Your task to perform on an android device: Search for bose soundsport free on walmart, select the first entry, add it to the cart, then select checkout. Image 0: 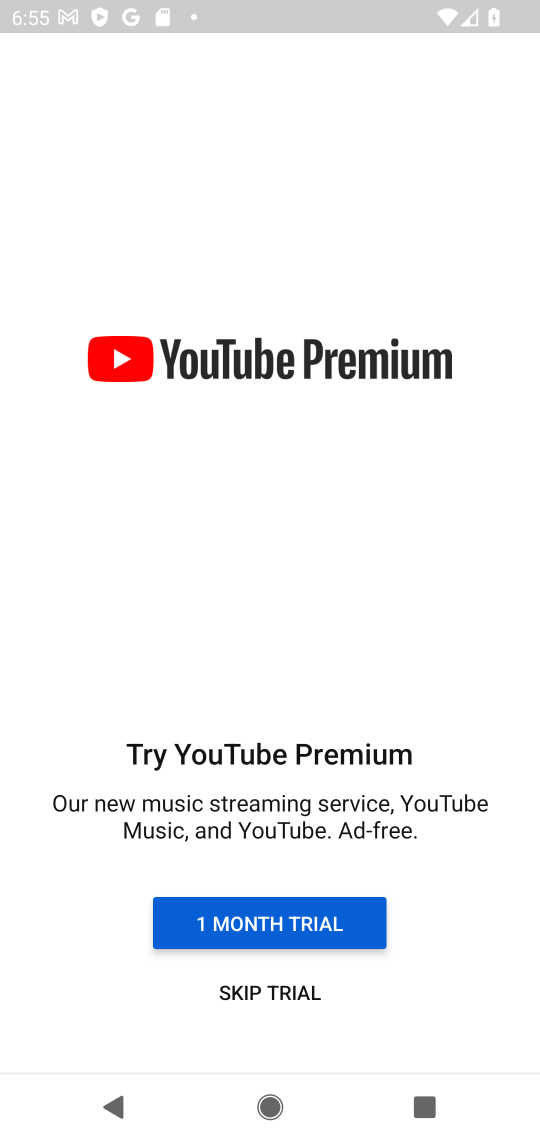
Step 0: press home button
Your task to perform on an android device: Search for bose soundsport free on walmart, select the first entry, add it to the cart, then select checkout. Image 1: 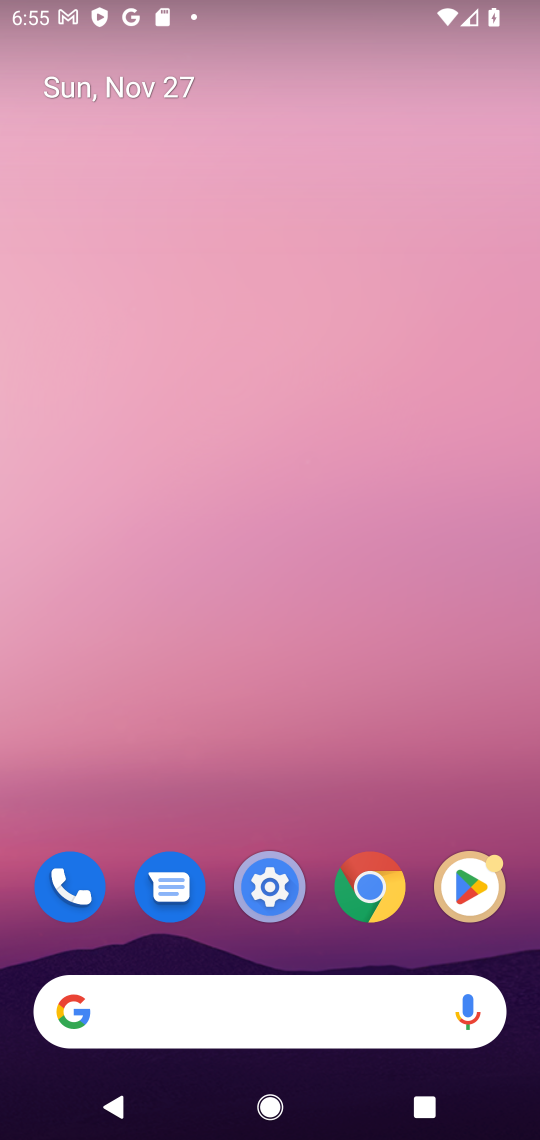
Step 1: click (249, 1039)
Your task to perform on an android device: Search for bose soundsport free on walmart, select the first entry, add it to the cart, then select checkout. Image 2: 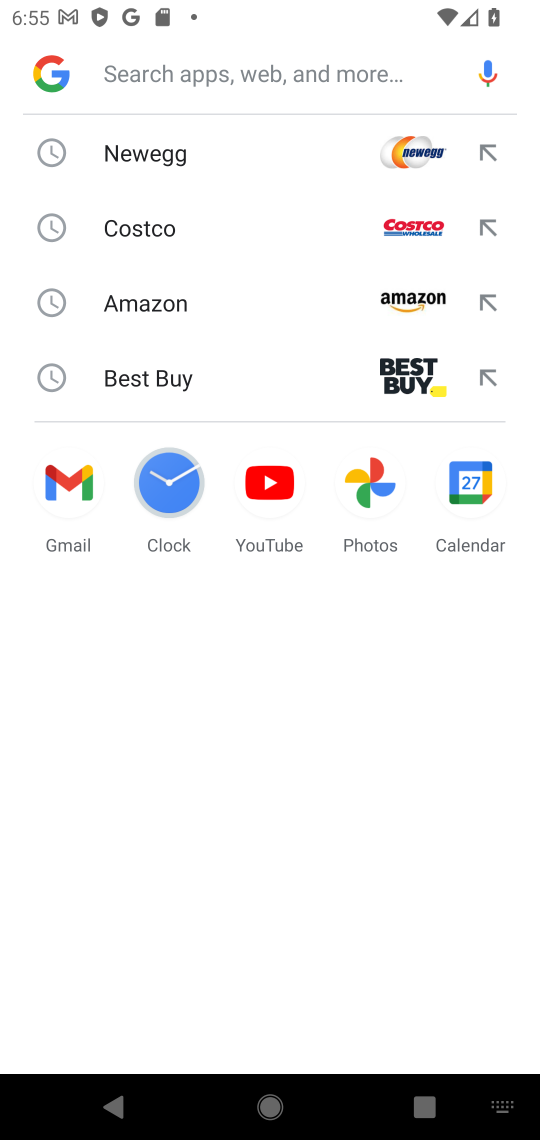
Step 2: type "walmart"
Your task to perform on an android device: Search for bose soundsport free on walmart, select the first entry, add it to the cart, then select checkout. Image 3: 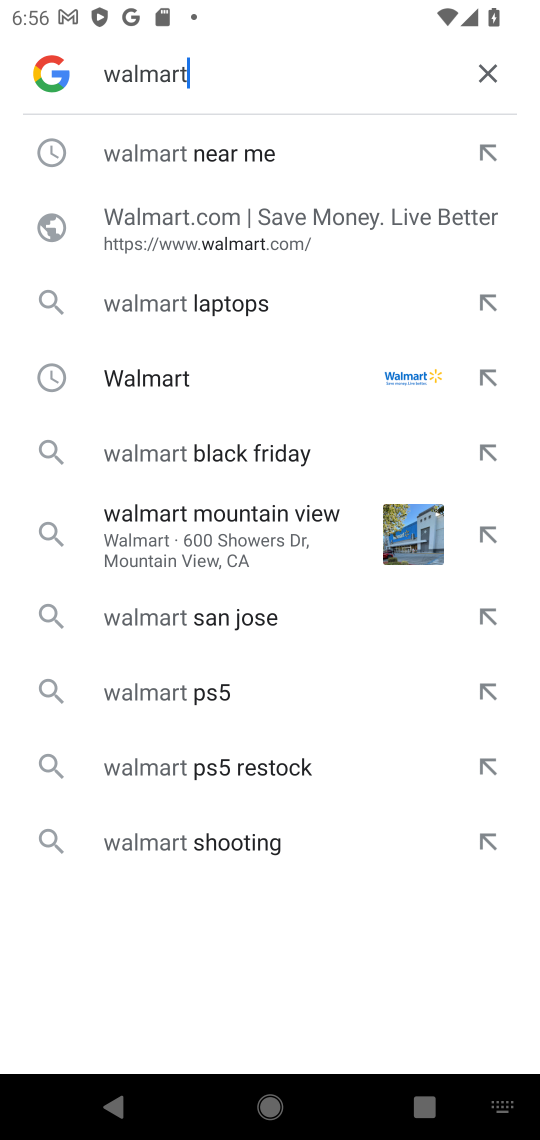
Step 3: click (193, 221)
Your task to perform on an android device: Search for bose soundsport free on walmart, select the first entry, add it to the cart, then select checkout. Image 4: 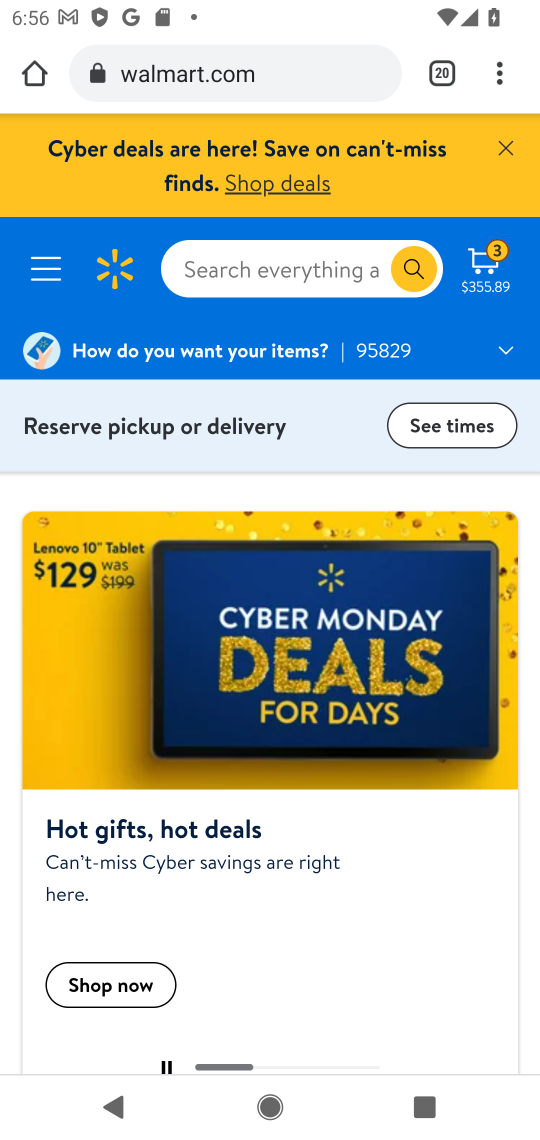
Step 4: click (263, 270)
Your task to perform on an android device: Search for bose soundsport free on walmart, select the first entry, add it to the cart, then select checkout. Image 5: 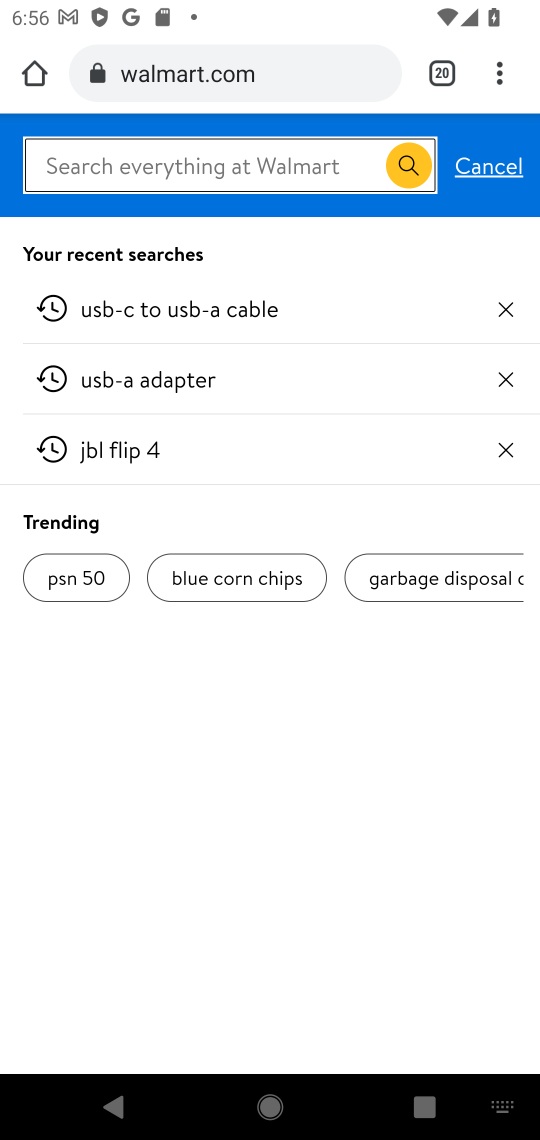
Step 5: type "bose soundsport"
Your task to perform on an android device: Search for bose soundsport free on walmart, select the first entry, add it to the cart, then select checkout. Image 6: 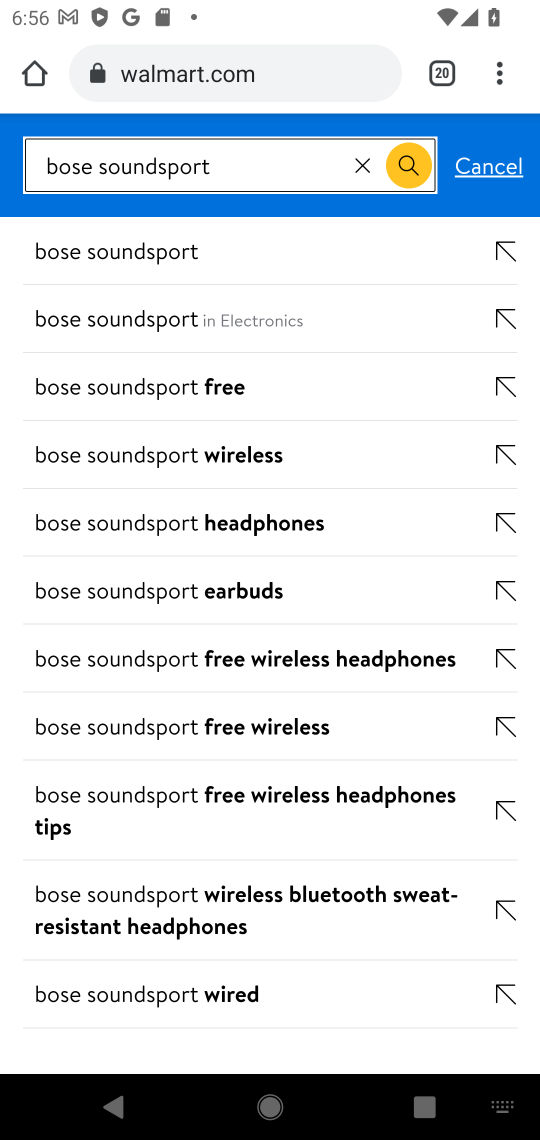
Step 6: click (87, 242)
Your task to perform on an android device: Search for bose soundsport free on walmart, select the first entry, add it to the cart, then select checkout. Image 7: 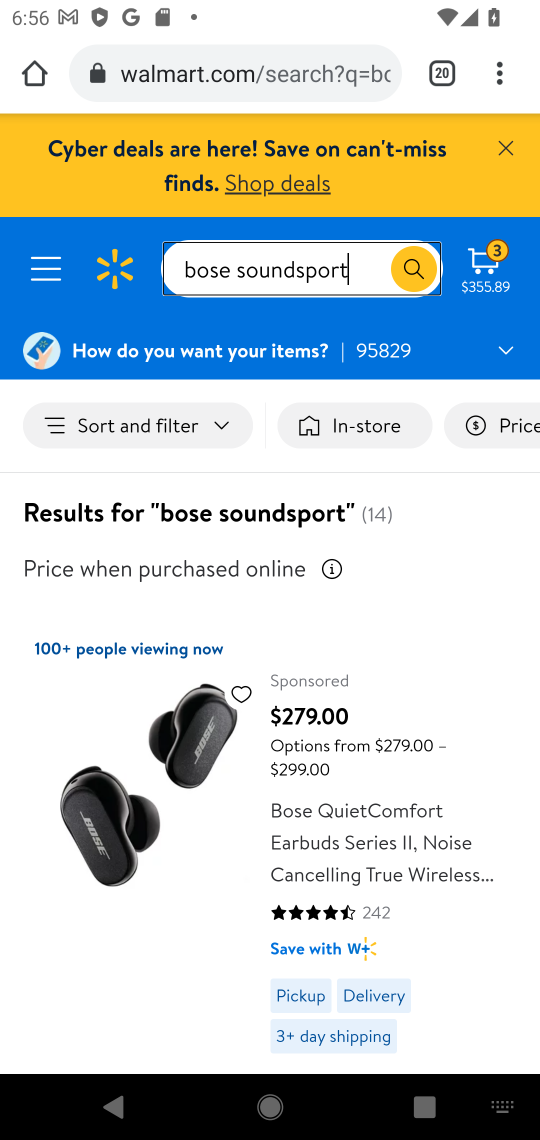
Step 7: click (301, 784)
Your task to perform on an android device: Search for bose soundsport free on walmart, select the first entry, add it to the cart, then select checkout. Image 8: 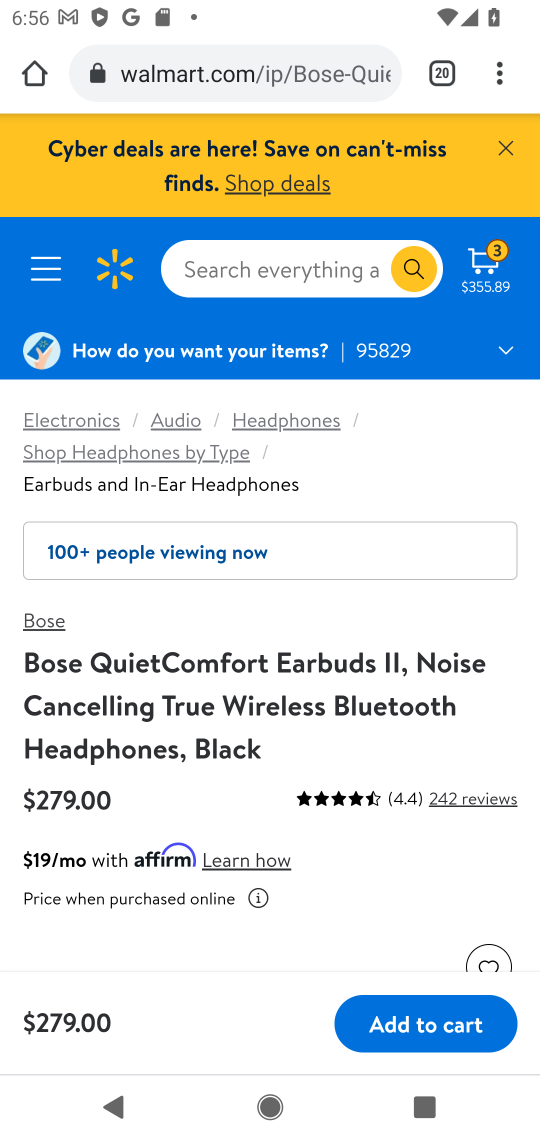
Step 8: click (410, 1023)
Your task to perform on an android device: Search for bose soundsport free on walmart, select the first entry, add it to the cart, then select checkout. Image 9: 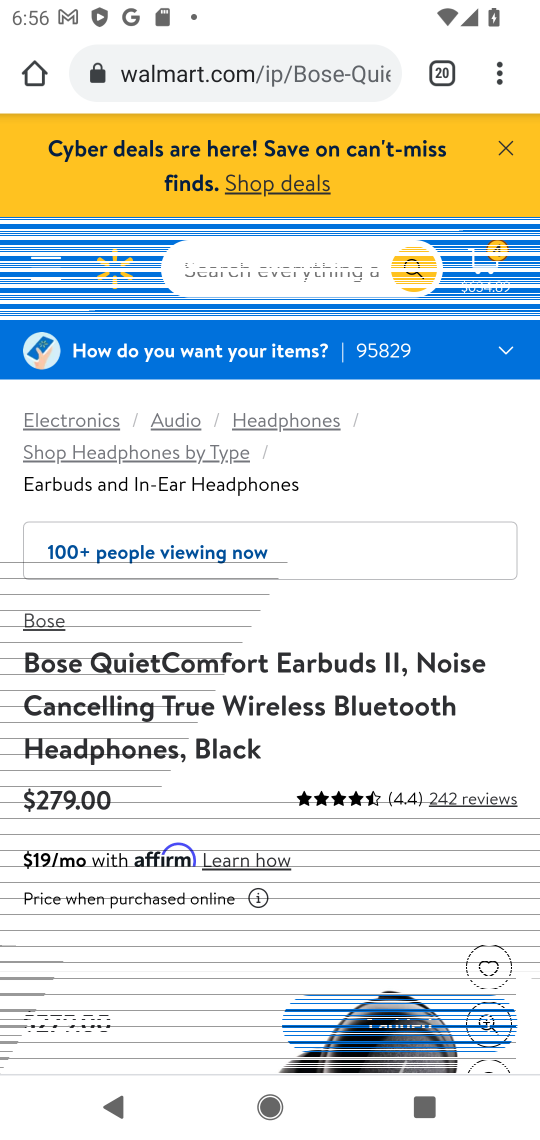
Step 9: task complete